Your task to perform on an android device: Go to sound settings Image 0: 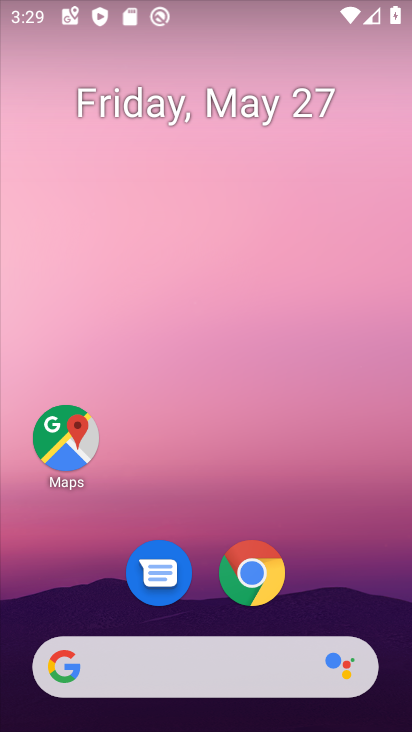
Step 0: drag from (249, 526) to (277, 49)
Your task to perform on an android device: Go to sound settings Image 1: 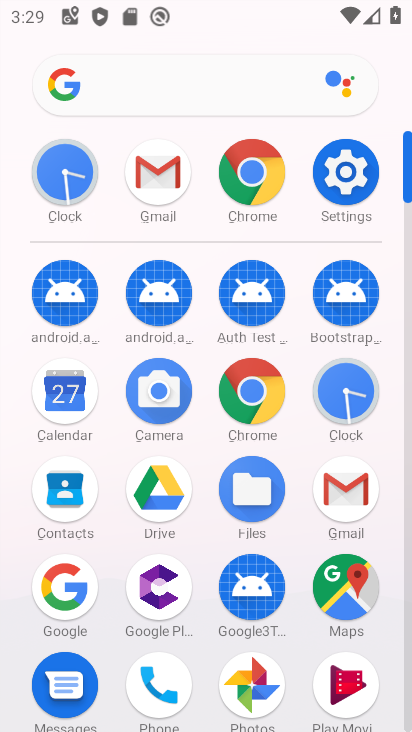
Step 1: click (347, 167)
Your task to perform on an android device: Go to sound settings Image 2: 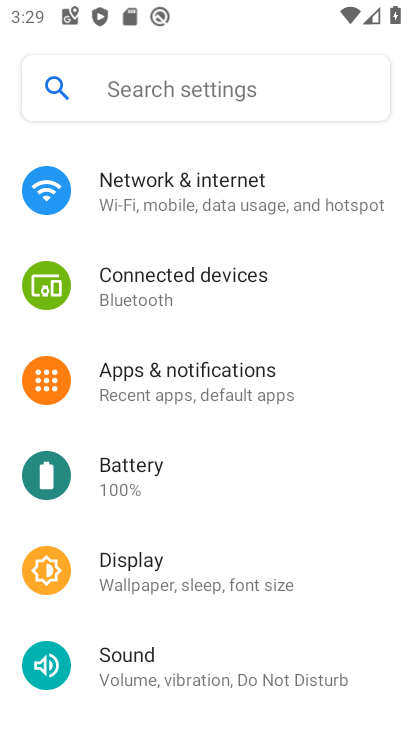
Step 2: drag from (244, 509) to (246, 335)
Your task to perform on an android device: Go to sound settings Image 3: 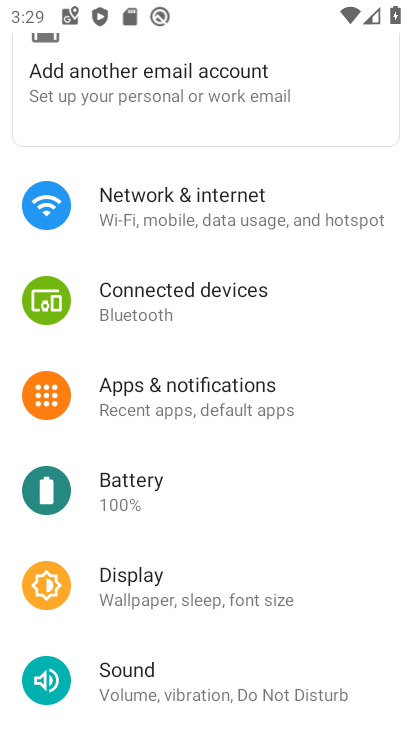
Step 3: click (212, 674)
Your task to perform on an android device: Go to sound settings Image 4: 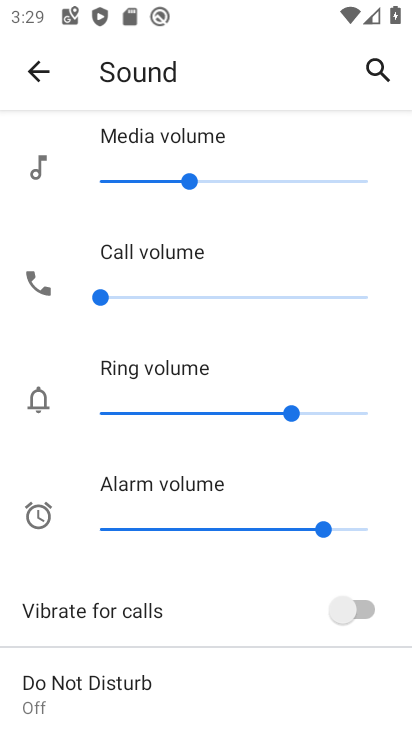
Step 4: task complete